Your task to perform on an android device: turn off javascript in the chrome app Image 0: 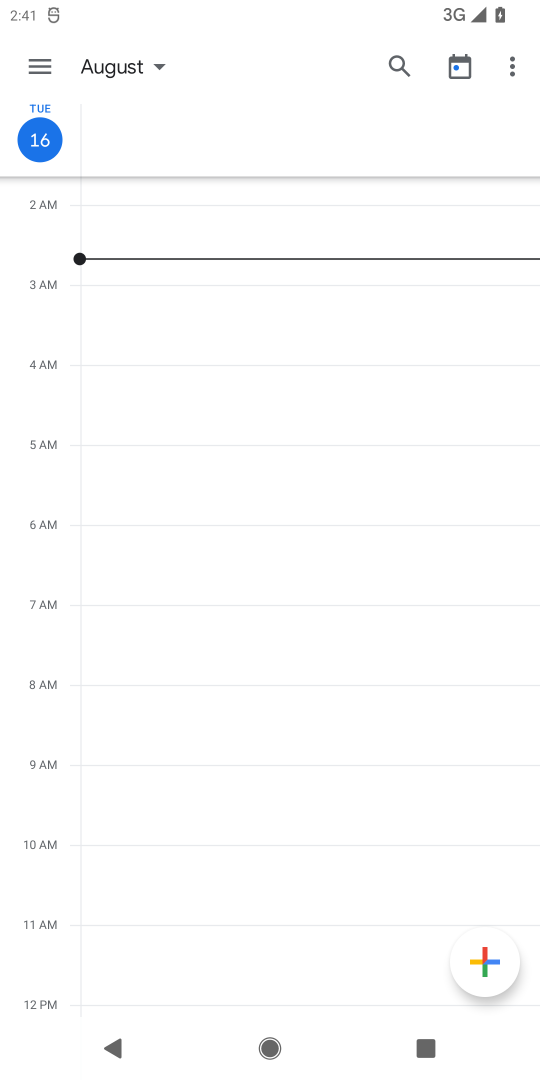
Step 0: press home button
Your task to perform on an android device: turn off javascript in the chrome app Image 1: 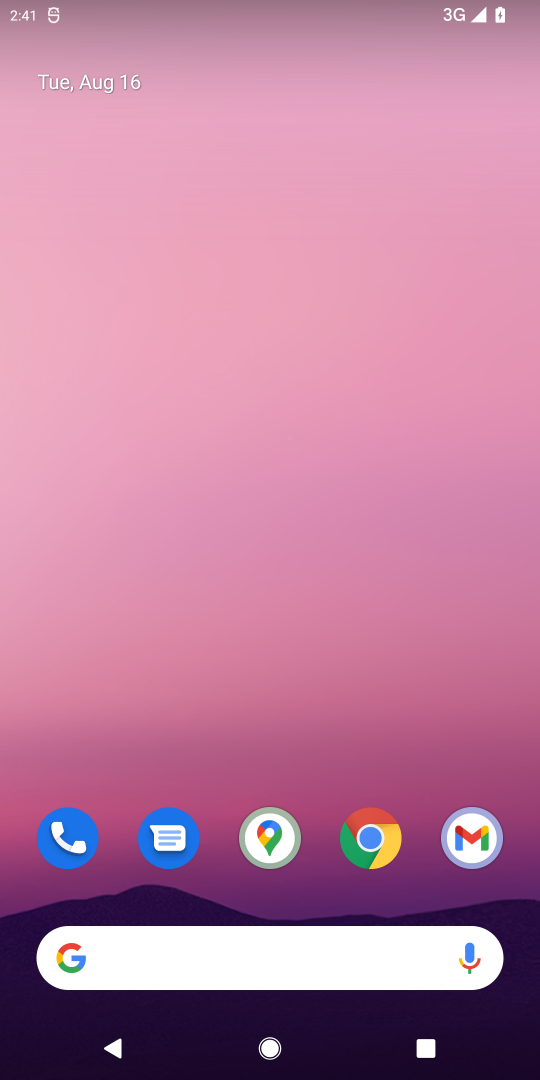
Step 1: click (384, 852)
Your task to perform on an android device: turn off javascript in the chrome app Image 2: 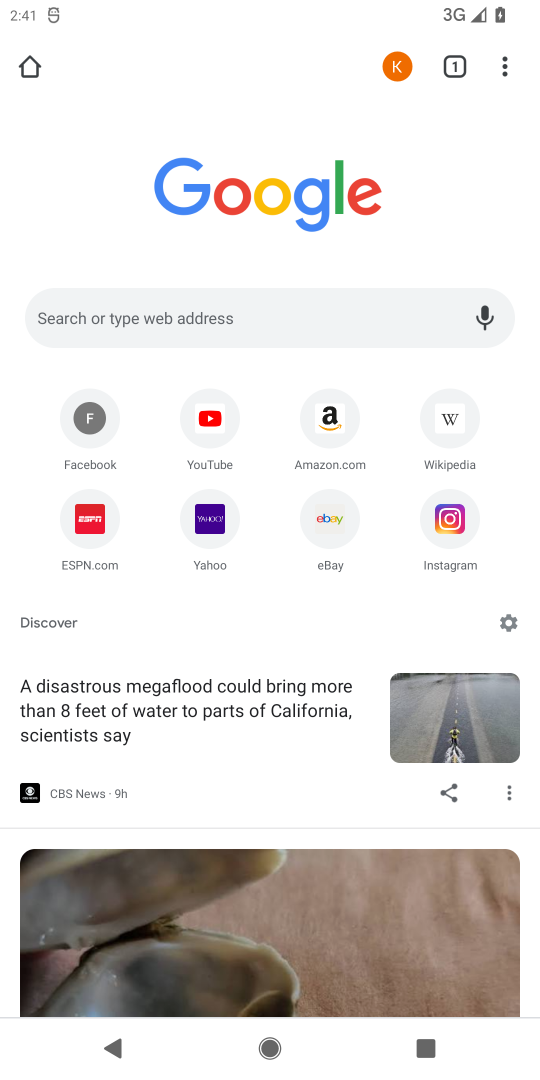
Step 2: drag from (510, 76) to (374, 668)
Your task to perform on an android device: turn off javascript in the chrome app Image 3: 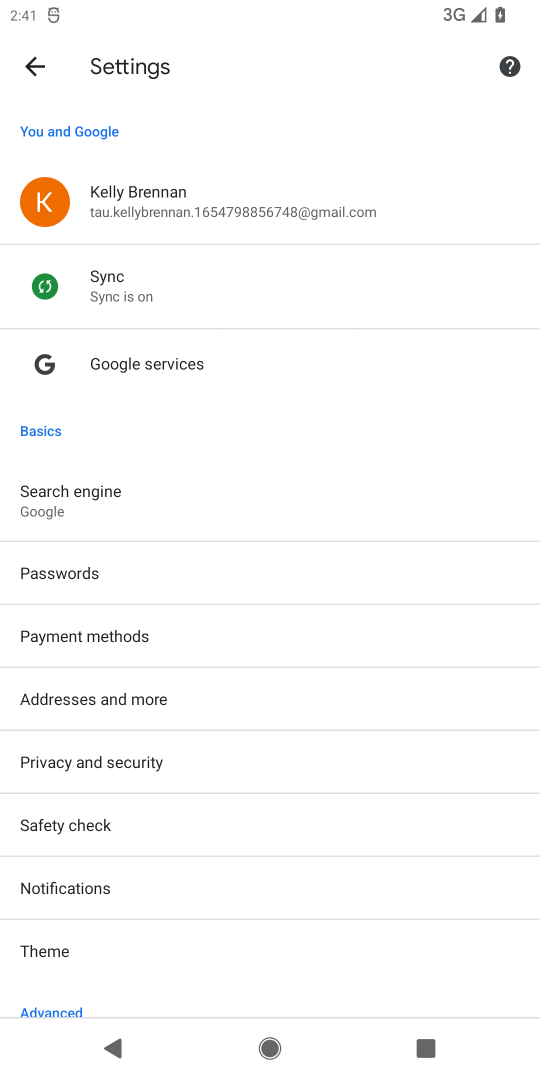
Step 3: drag from (142, 1003) to (126, 565)
Your task to perform on an android device: turn off javascript in the chrome app Image 4: 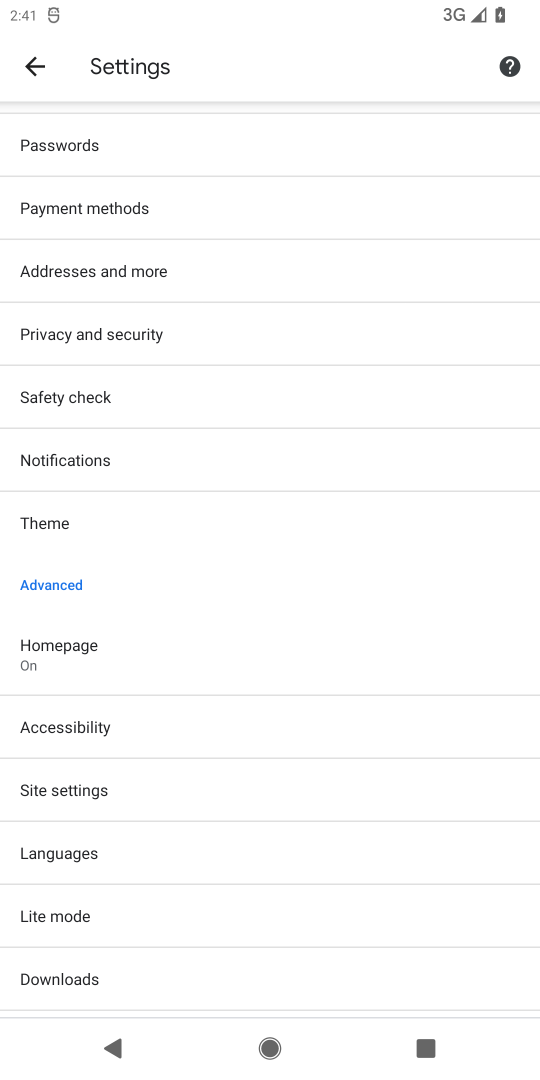
Step 4: click (106, 788)
Your task to perform on an android device: turn off javascript in the chrome app Image 5: 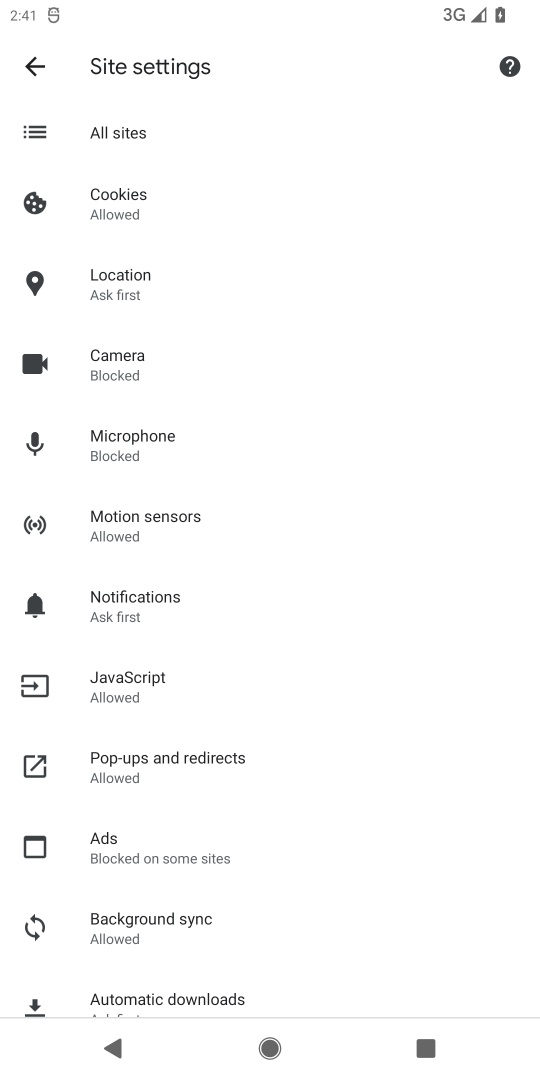
Step 5: click (122, 693)
Your task to perform on an android device: turn off javascript in the chrome app Image 6: 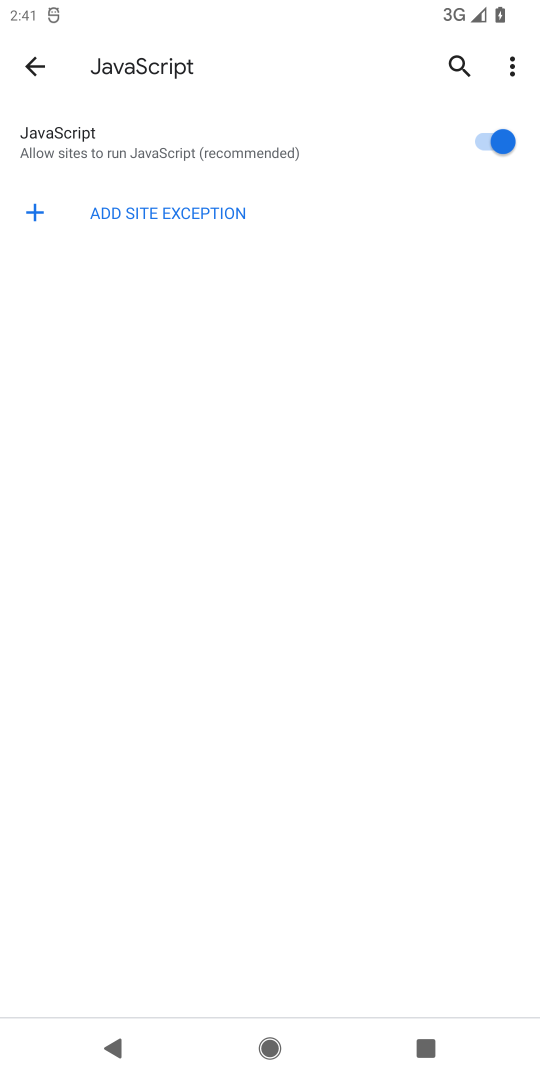
Step 6: click (492, 137)
Your task to perform on an android device: turn off javascript in the chrome app Image 7: 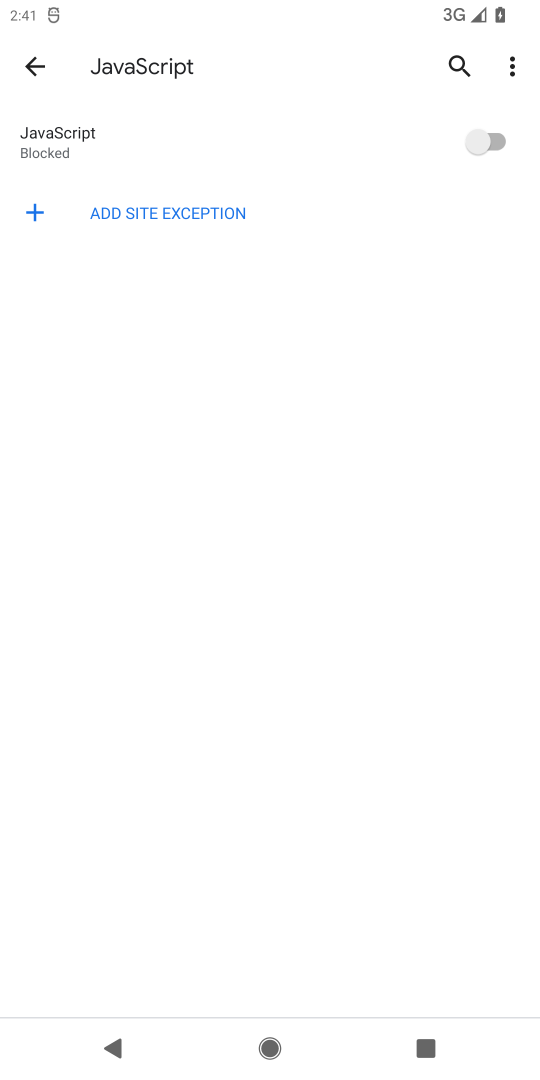
Step 7: task complete